Your task to perform on an android device: check android version Image 0: 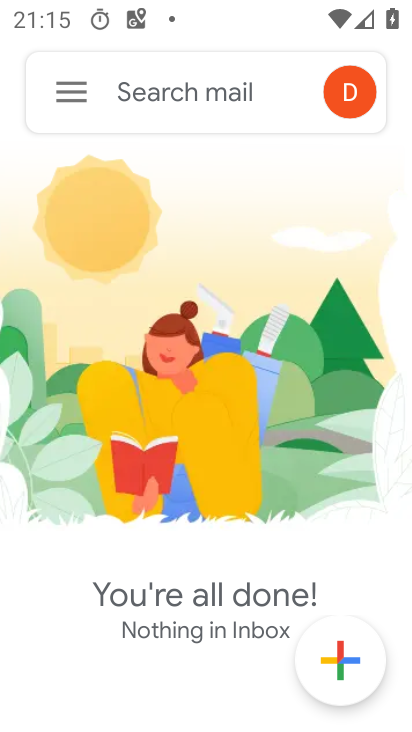
Step 0: press home button
Your task to perform on an android device: check android version Image 1: 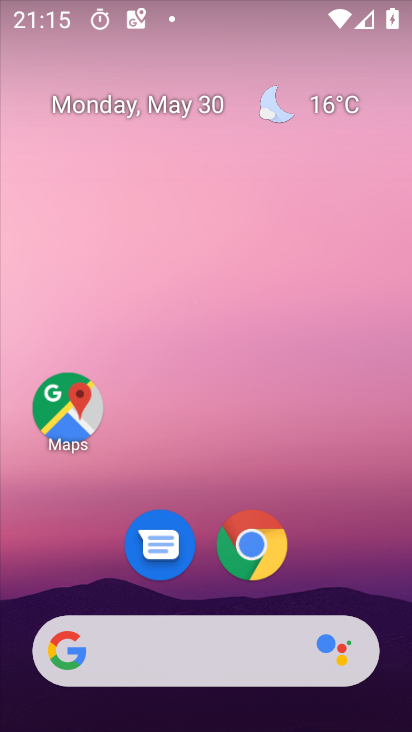
Step 1: drag from (314, 547) to (267, 11)
Your task to perform on an android device: check android version Image 2: 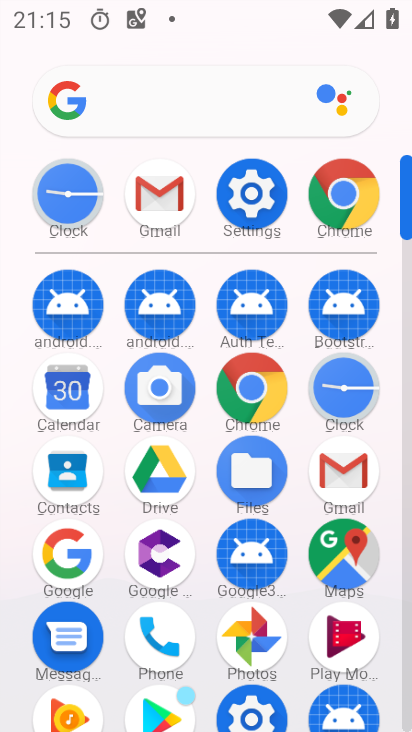
Step 2: click (254, 193)
Your task to perform on an android device: check android version Image 3: 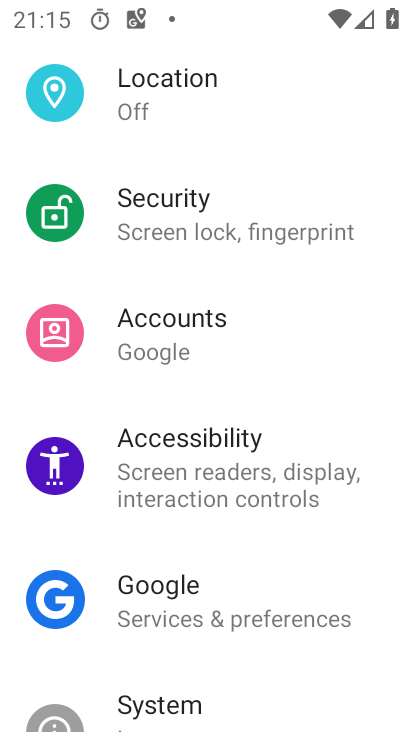
Step 3: drag from (286, 660) to (325, 171)
Your task to perform on an android device: check android version Image 4: 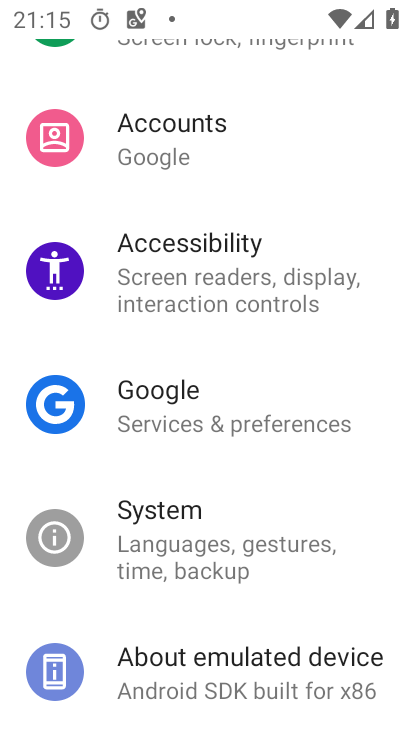
Step 4: click (243, 656)
Your task to perform on an android device: check android version Image 5: 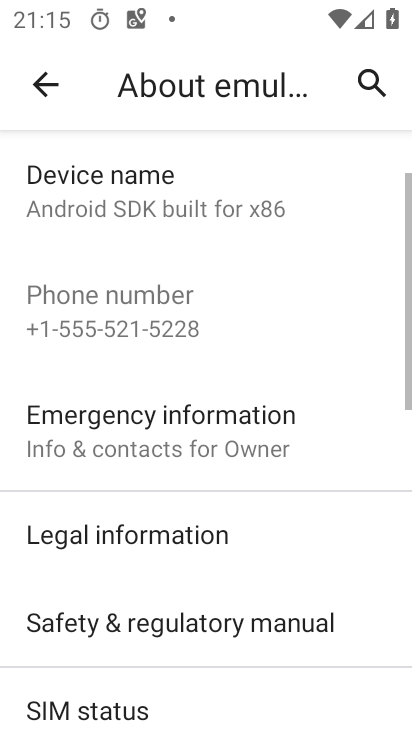
Step 5: drag from (325, 608) to (320, 316)
Your task to perform on an android device: check android version Image 6: 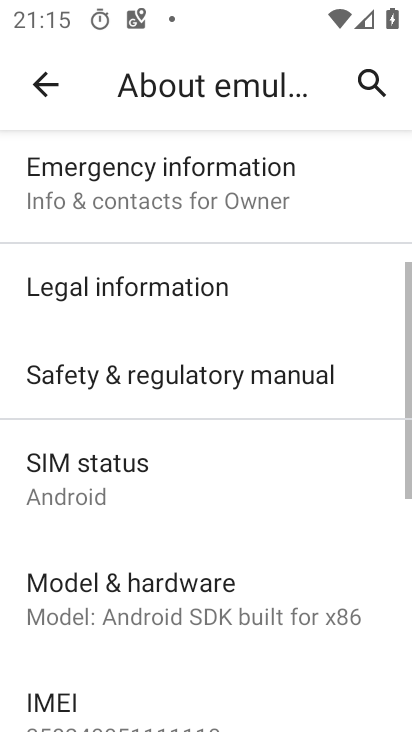
Step 6: drag from (189, 648) to (272, 191)
Your task to perform on an android device: check android version Image 7: 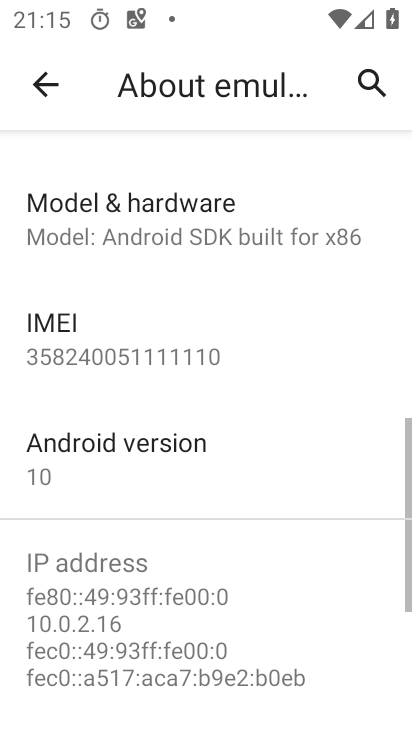
Step 7: click (190, 465)
Your task to perform on an android device: check android version Image 8: 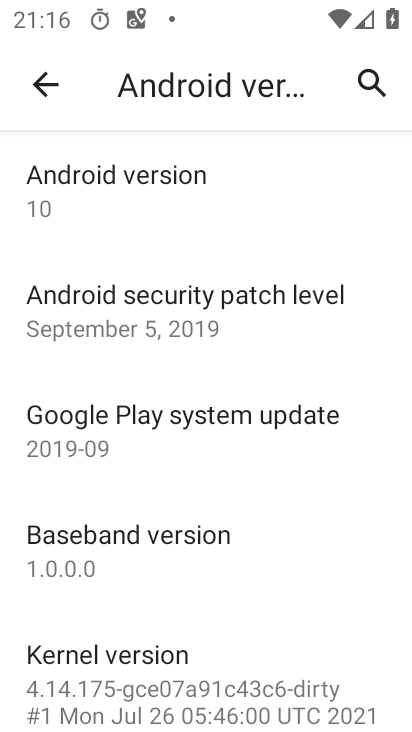
Step 8: task complete